Your task to perform on an android device: Do I have any events tomorrow? Image 0: 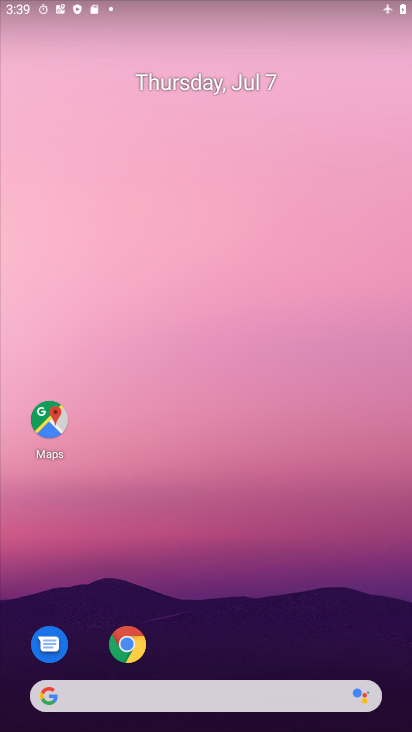
Step 0: drag from (221, 585) to (192, 75)
Your task to perform on an android device: Do I have any events tomorrow? Image 1: 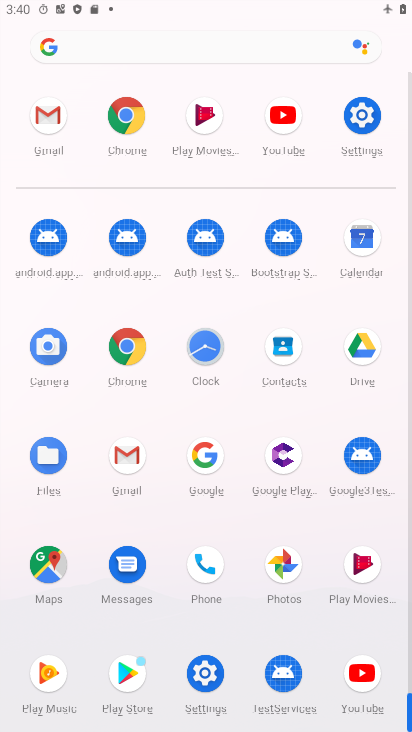
Step 1: click (370, 243)
Your task to perform on an android device: Do I have any events tomorrow? Image 2: 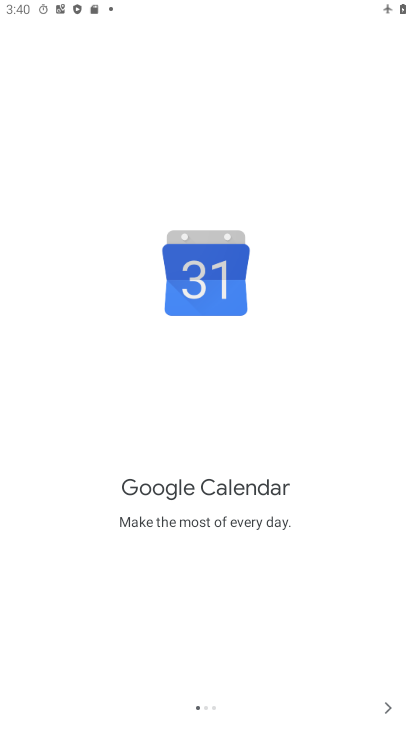
Step 2: click (388, 702)
Your task to perform on an android device: Do I have any events tomorrow? Image 3: 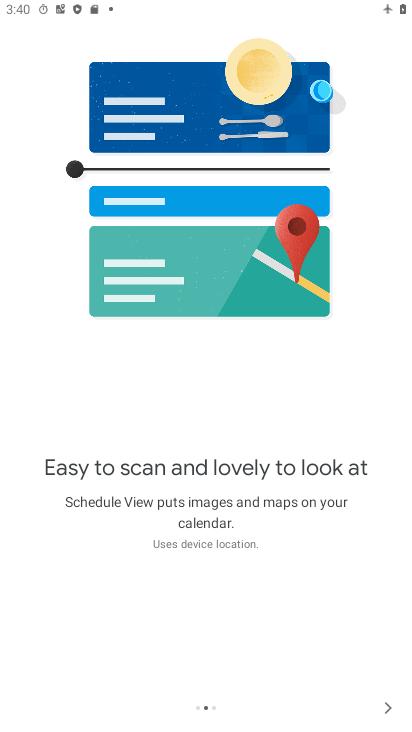
Step 3: click (388, 702)
Your task to perform on an android device: Do I have any events tomorrow? Image 4: 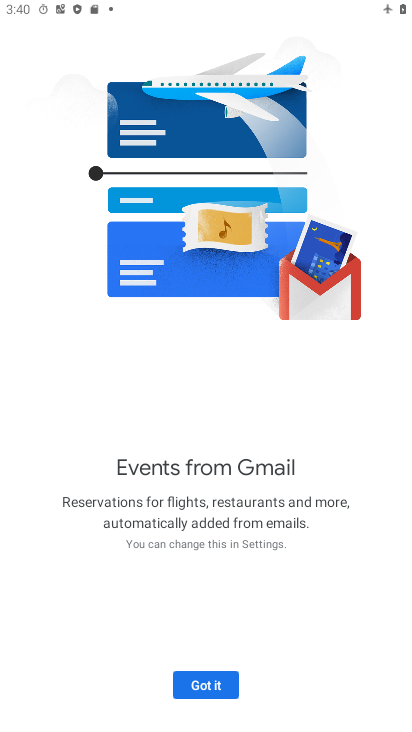
Step 4: click (189, 678)
Your task to perform on an android device: Do I have any events tomorrow? Image 5: 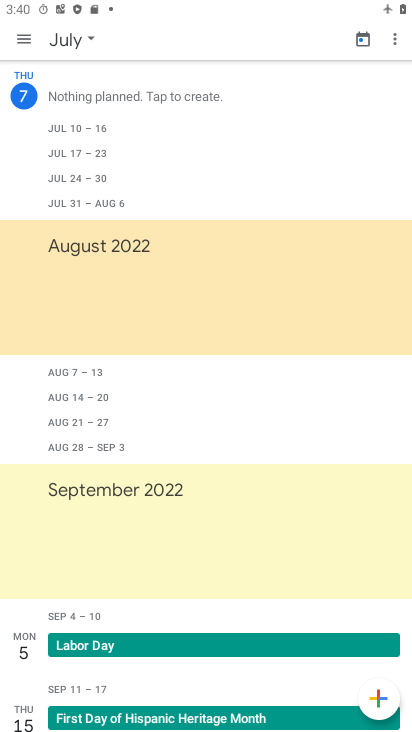
Step 5: click (16, 41)
Your task to perform on an android device: Do I have any events tomorrow? Image 6: 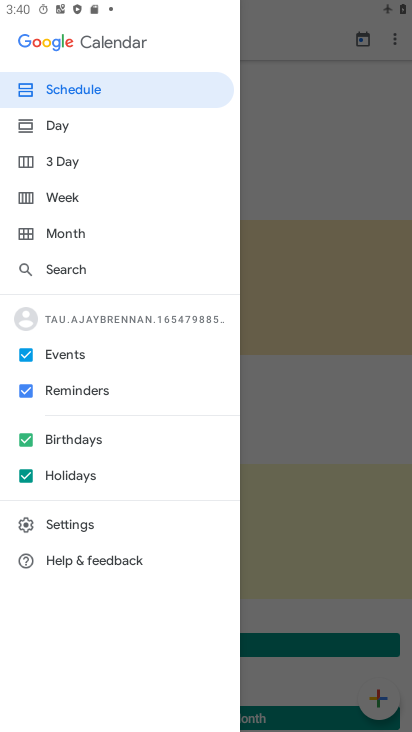
Step 6: click (77, 201)
Your task to perform on an android device: Do I have any events tomorrow? Image 7: 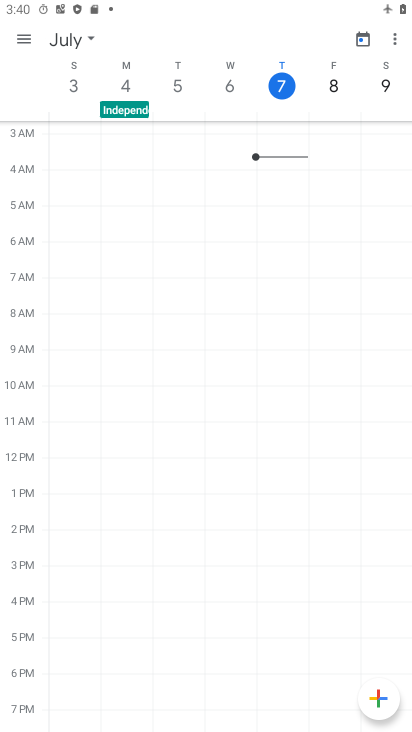
Step 7: click (337, 89)
Your task to perform on an android device: Do I have any events tomorrow? Image 8: 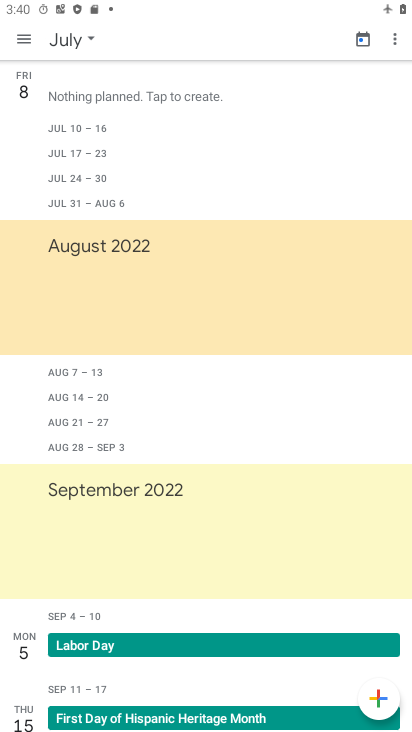
Step 8: task complete